Your task to perform on an android device: Show me popular games on the Play Store Image 0: 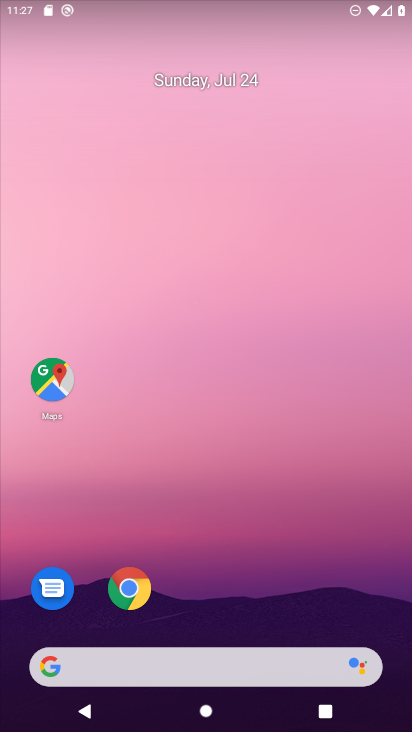
Step 0: drag from (294, 627) to (270, 49)
Your task to perform on an android device: Show me popular games on the Play Store Image 1: 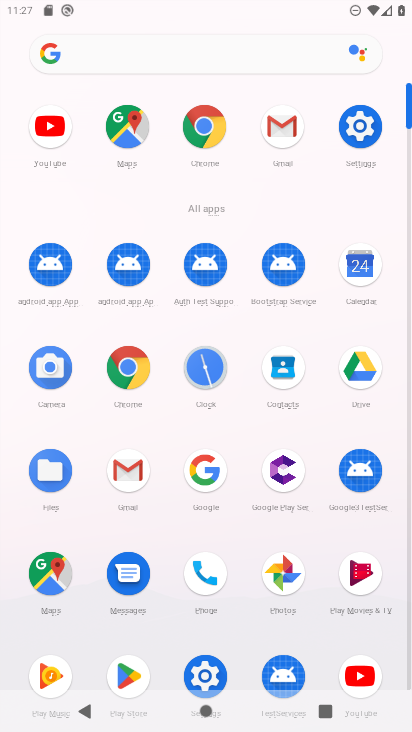
Step 1: click (121, 682)
Your task to perform on an android device: Show me popular games on the Play Store Image 2: 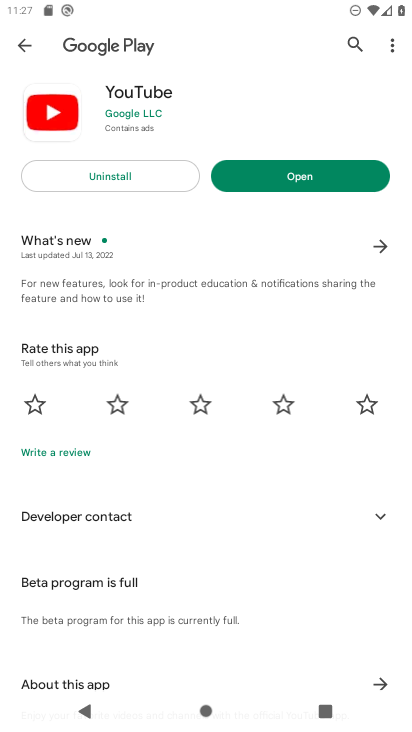
Step 2: click (27, 36)
Your task to perform on an android device: Show me popular games on the Play Store Image 3: 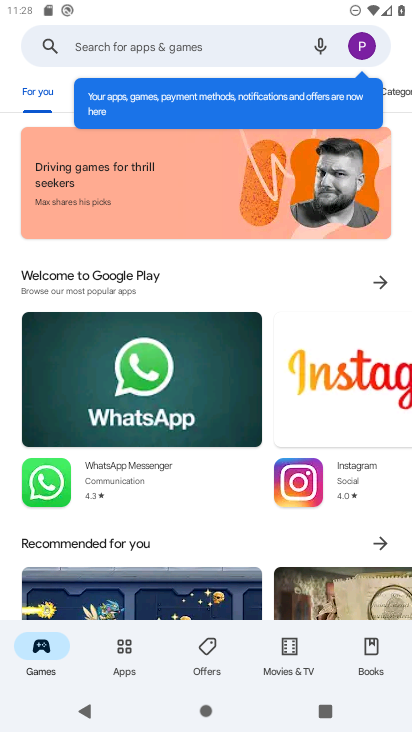
Step 3: drag from (213, 391) to (208, 236)
Your task to perform on an android device: Show me popular games on the Play Store Image 4: 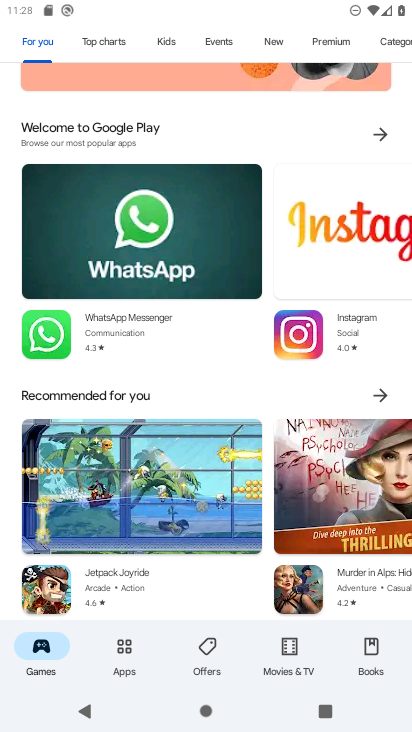
Step 4: drag from (216, 593) to (228, 79)
Your task to perform on an android device: Show me popular games on the Play Store Image 5: 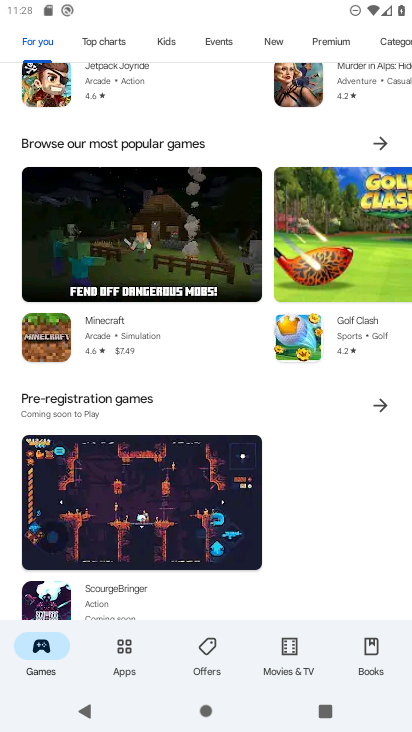
Step 5: click (273, 149)
Your task to perform on an android device: Show me popular games on the Play Store Image 6: 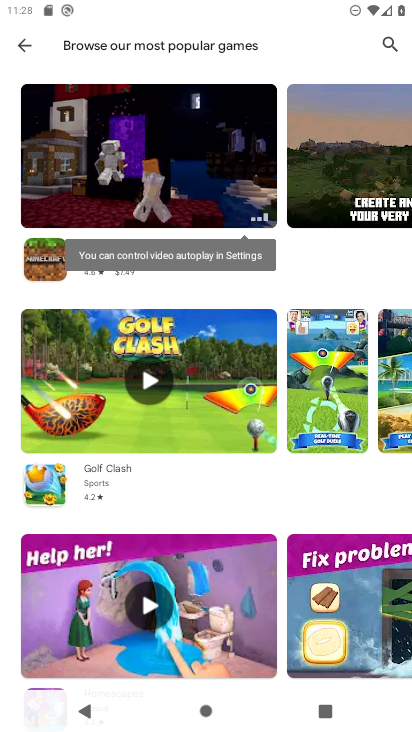
Step 6: task complete